Your task to perform on an android device: check the backup settings in the google photos Image 0: 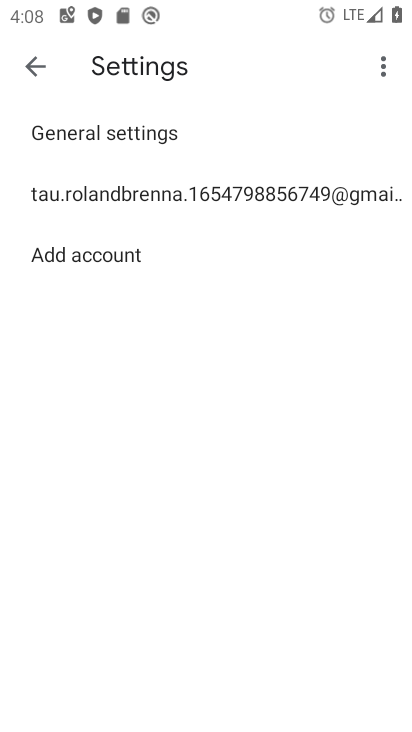
Step 0: press home button
Your task to perform on an android device: check the backup settings in the google photos Image 1: 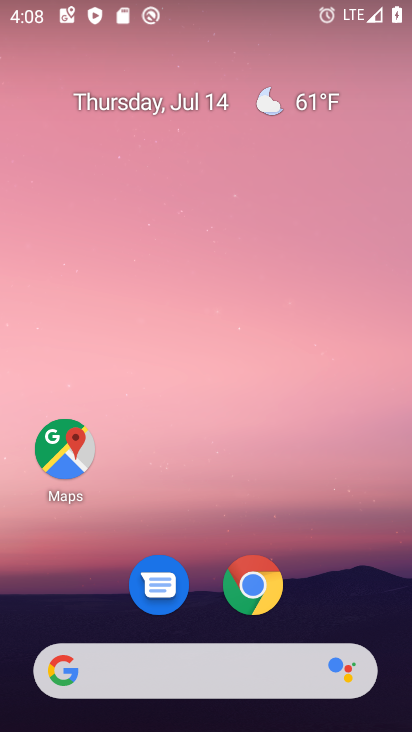
Step 1: drag from (319, 542) to (334, 39)
Your task to perform on an android device: check the backup settings in the google photos Image 2: 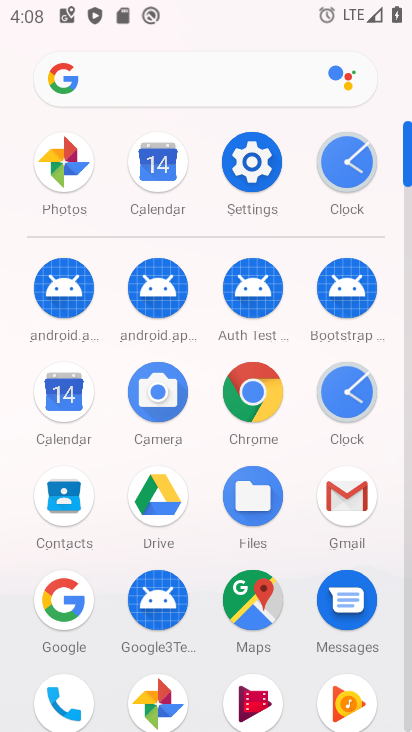
Step 2: click (75, 164)
Your task to perform on an android device: check the backup settings in the google photos Image 3: 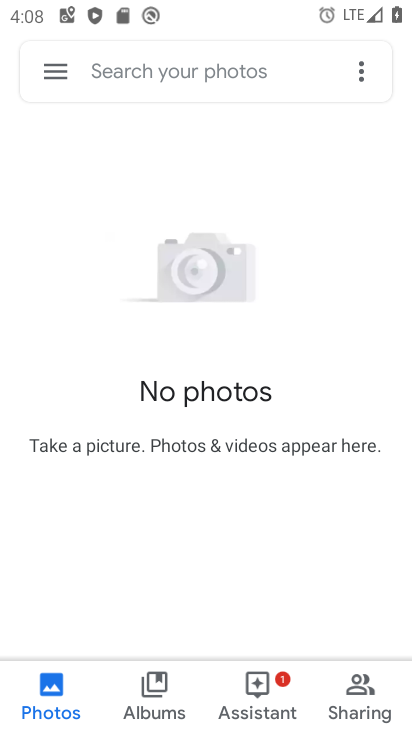
Step 3: click (60, 73)
Your task to perform on an android device: check the backup settings in the google photos Image 4: 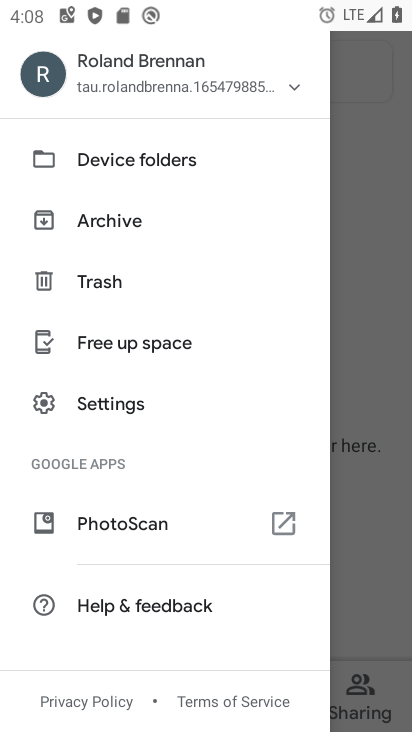
Step 4: click (108, 396)
Your task to perform on an android device: check the backup settings in the google photos Image 5: 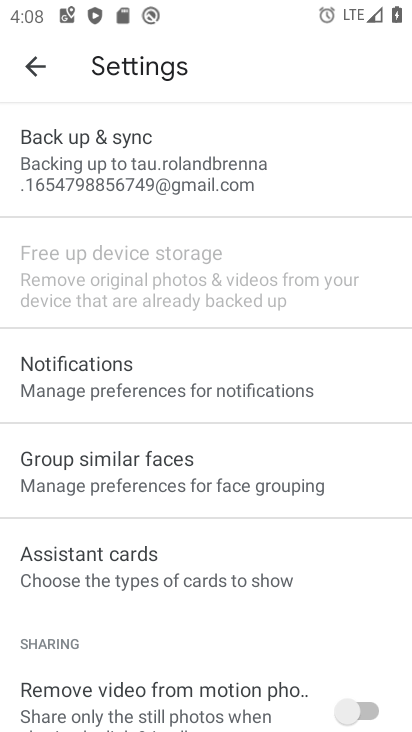
Step 5: click (137, 167)
Your task to perform on an android device: check the backup settings in the google photos Image 6: 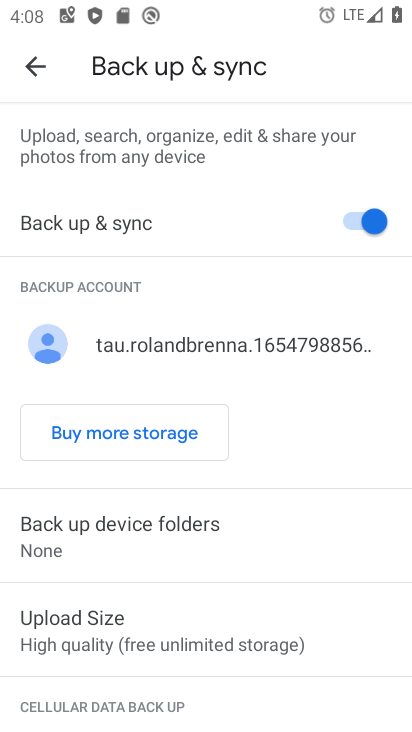
Step 6: drag from (120, 659) to (189, 113)
Your task to perform on an android device: check the backup settings in the google photos Image 7: 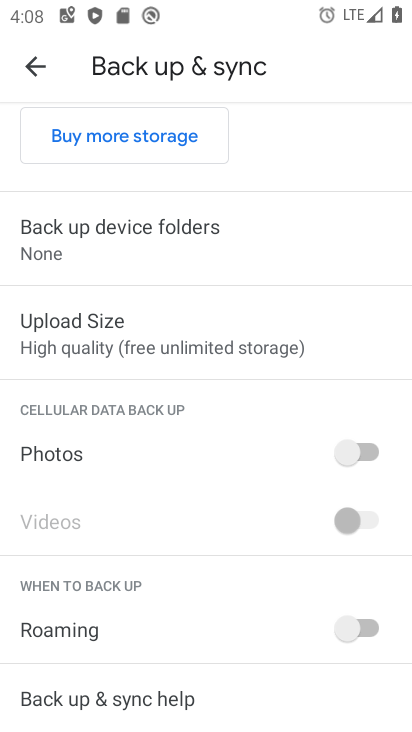
Step 7: click (354, 445)
Your task to perform on an android device: check the backup settings in the google photos Image 8: 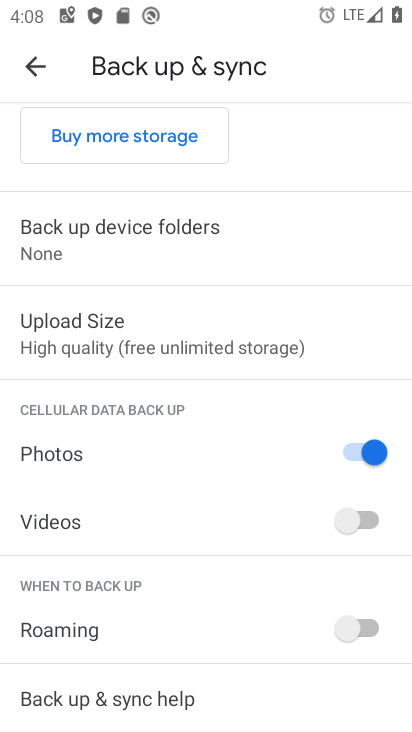
Step 8: click (357, 521)
Your task to perform on an android device: check the backup settings in the google photos Image 9: 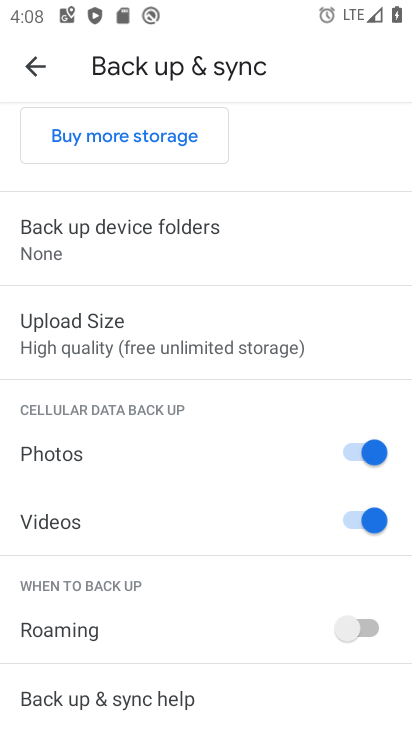
Step 9: drag from (194, 632) to (210, 403)
Your task to perform on an android device: check the backup settings in the google photos Image 10: 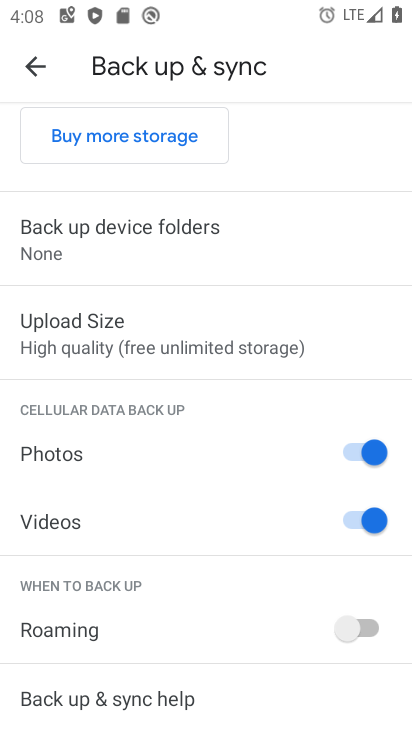
Step 10: click (356, 625)
Your task to perform on an android device: check the backup settings in the google photos Image 11: 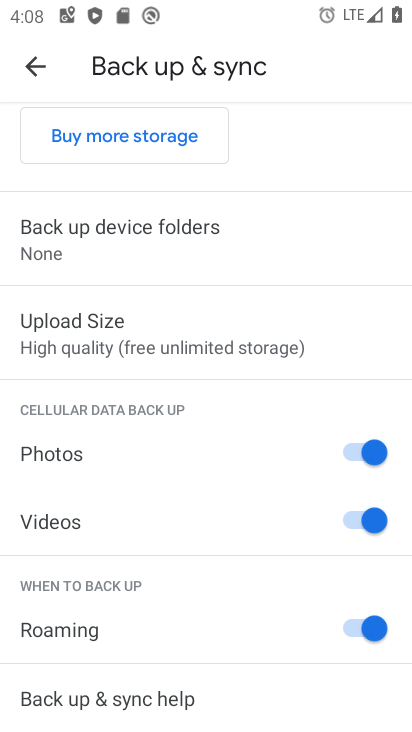
Step 11: task complete